Your task to perform on an android device: turn on the 12-hour format for clock Image 0: 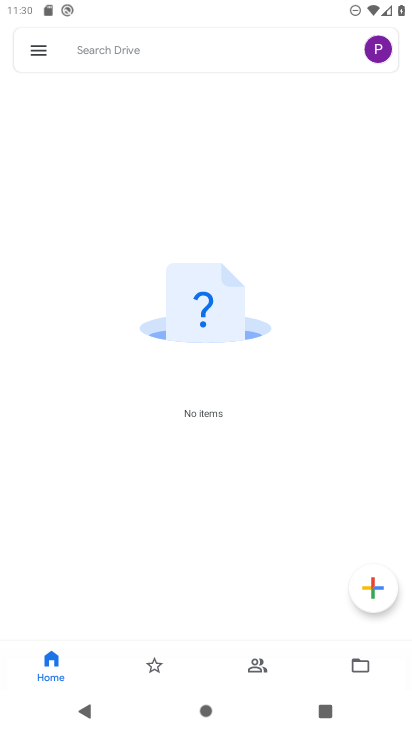
Step 0: press home button
Your task to perform on an android device: turn on the 12-hour format for clock Image 1: 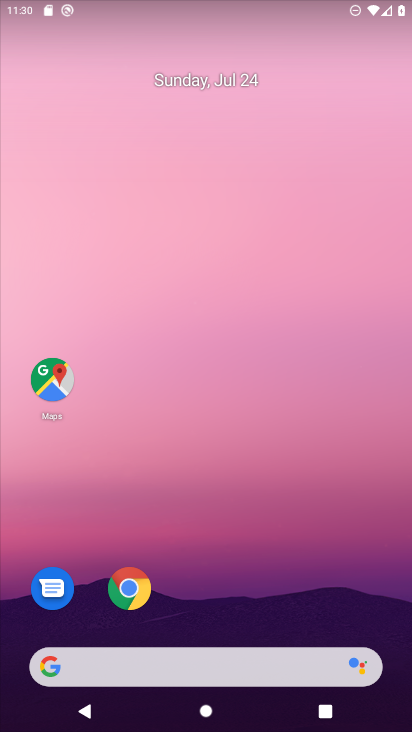
Step 1: drag from (220, 614) to (199, 93)
Your task to perform on an android device: turn on the 12-hour format for clock Image 2: 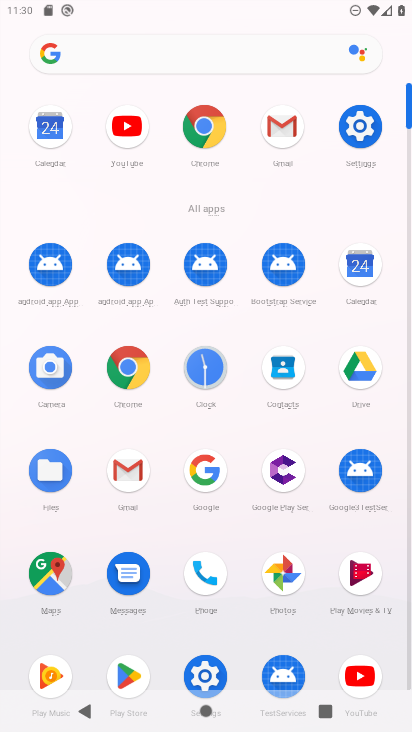
Step 2: click (212, 378)
Your task to perform on an android device: turn on the 12-hour format for clock Image 3: 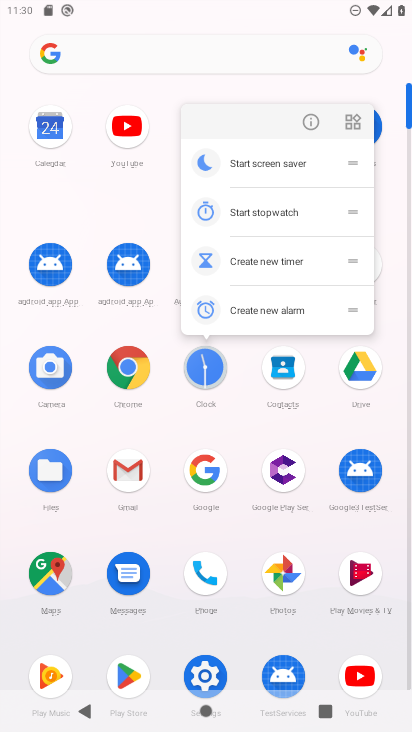
Step 3: click (212, 377)
Your task to perform on an android device: turn on the 12-hour format for clock Image 4: 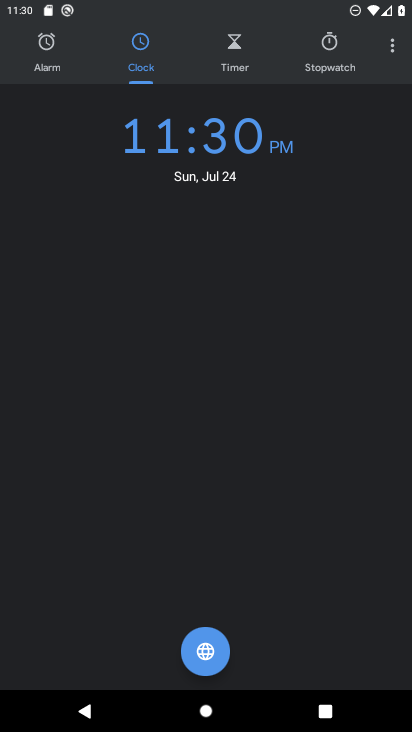
Step 4: click (394, 59)
Your task to perform on an android device: turn on the 12-hour format for clock Image 5: 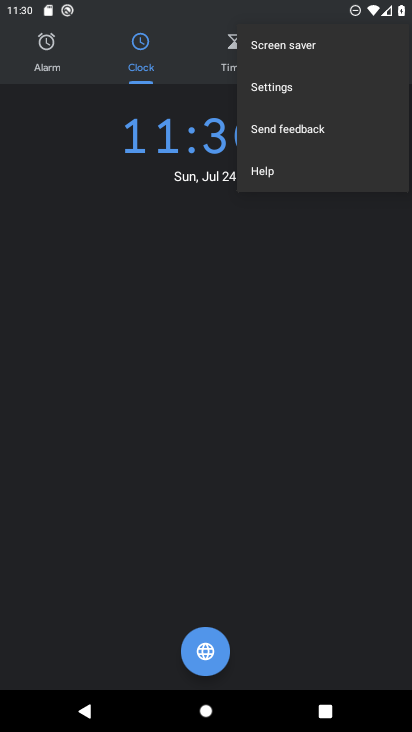
Step 5: click (329, 95)
Your task to perform on an android device: turn on the 12-hour format for clock Image 6: 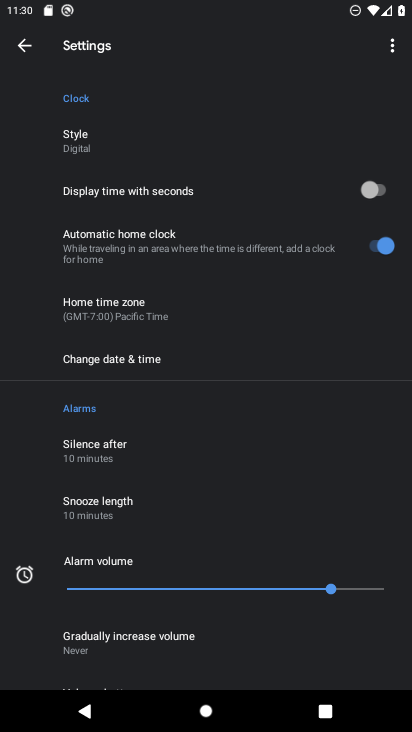
Step 6: click (161, 355)
Your task to perform on an android device: turn on the 12-hour format for clock Image 7: 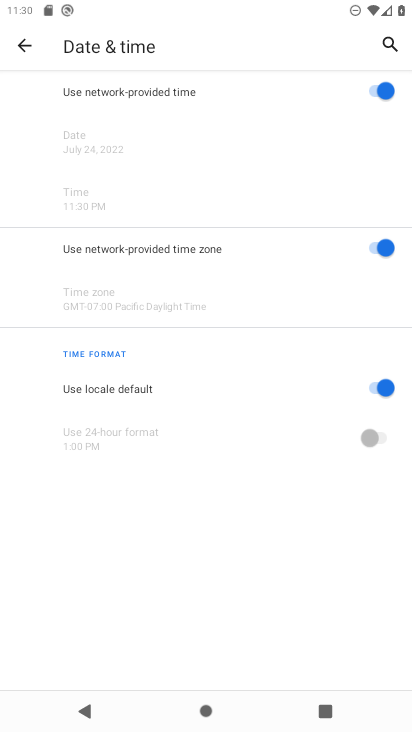
Step 7: task complete